Your task to perform on an android device: Open Amazon Image 0: 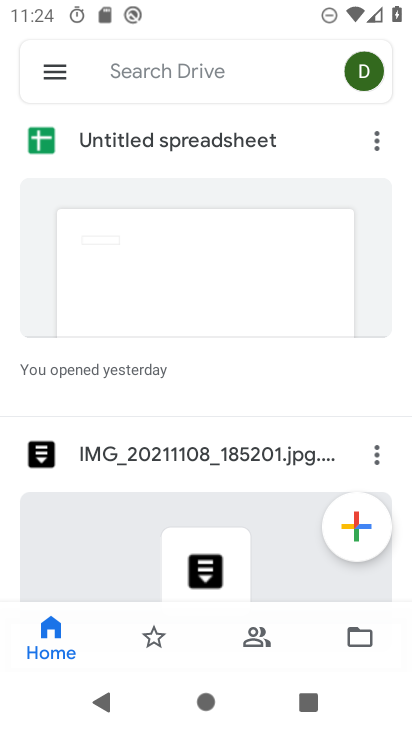
Step 0: press home button
Your task to perform on an android device: Open Amazon Image 1: 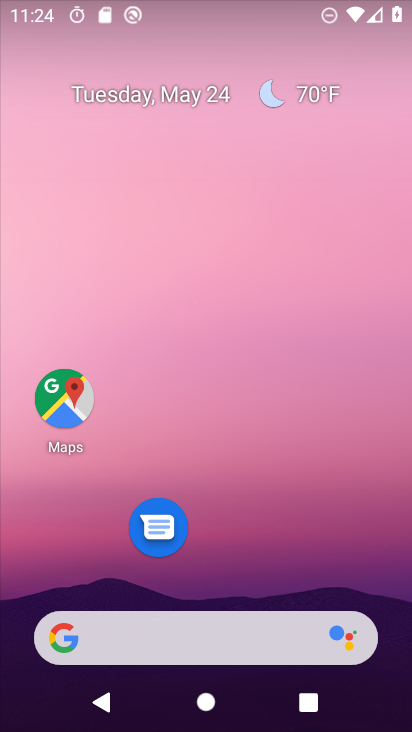
Step 1: drag from (240, 533) to (241, 58)
Your task to perform on an android device: Open Amazon Image 2: 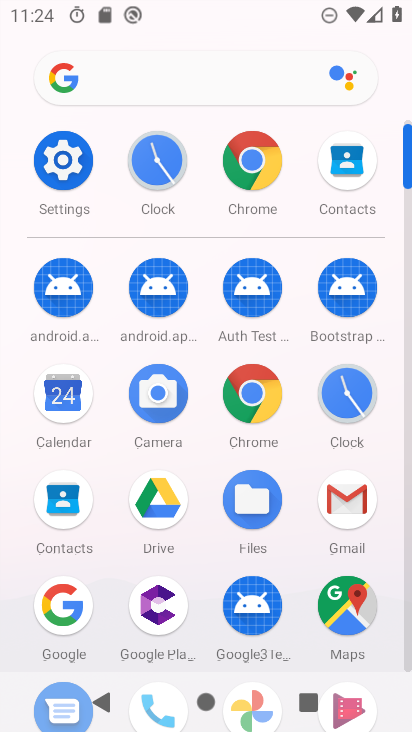
Step 2: click (255, 159)
Your task to perform on an android device: Open Amazon Image 3: 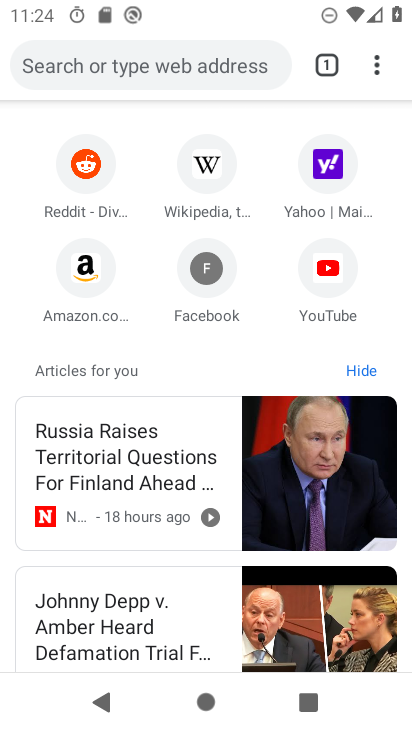
Step 3: click (88, 271)
Your task to perform on an android device: Open Amazon Image 4: 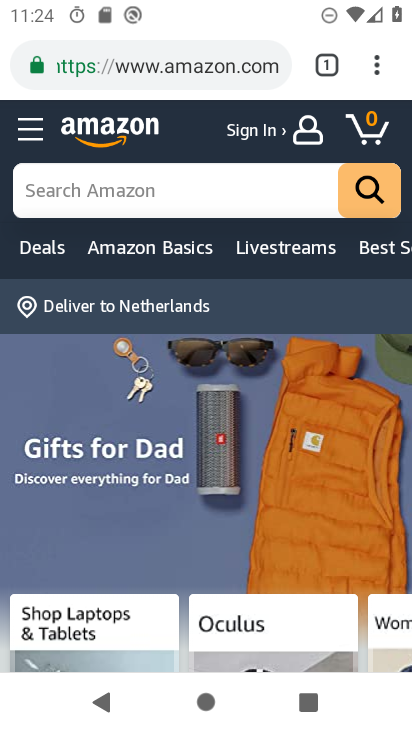
Step 4: task complete